Your task to perform on an android device: create a new album in the google photos Image 0: 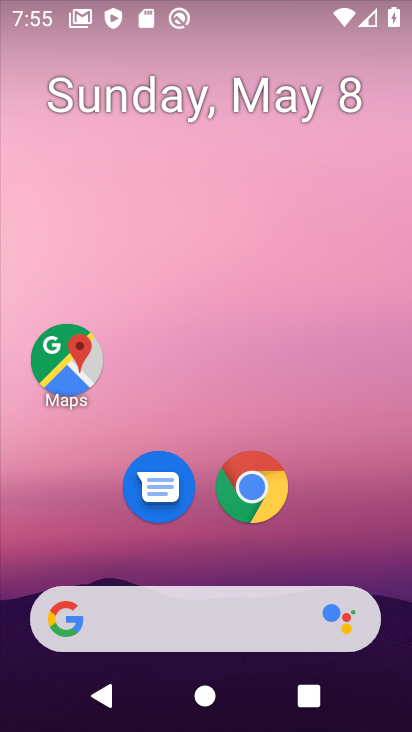
Step 0: drag from (345, 534) to (238, 71)
Your task to perform on an android device: create a new album in the google photos Image 1: 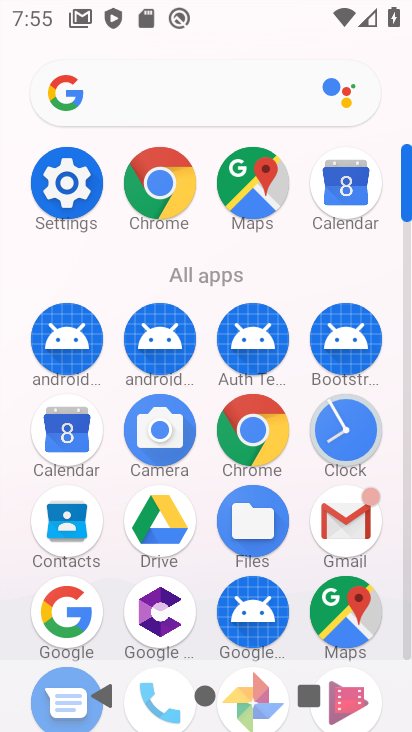
Step 1: click (404, 645)
Your task to perform on an android device: create a new album in the google photos Image 2: 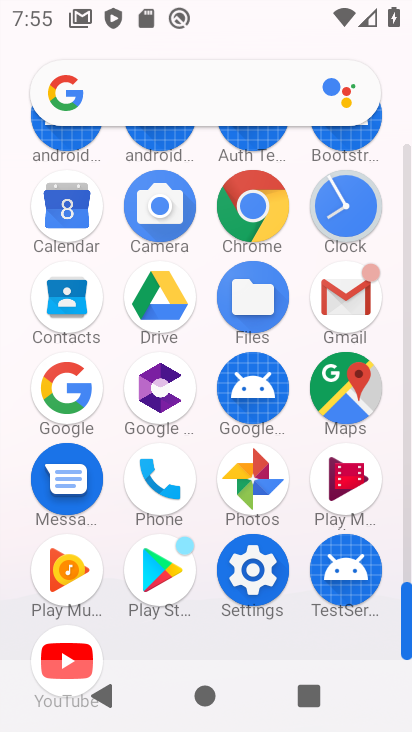
Step 2: click (251, 464)
Your task to perform on an android device: create a new album in the google photos Image 3: 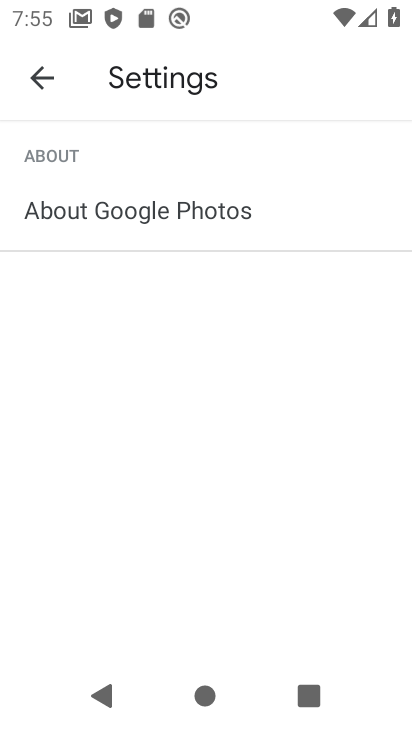
Step 3: task complete